Your task to perform on an android device: Show me the alarms in the clock app Image 0: 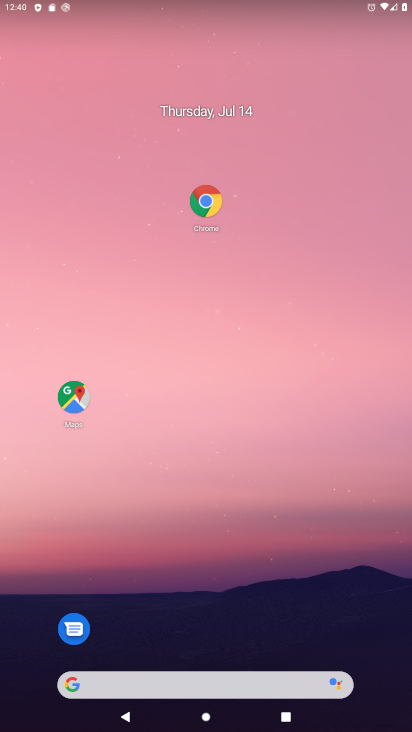
Step 0: drag from (227, 650) to (26, 155)
Your task to perform on an android device: Show me the alarms in the clock app Image 1: 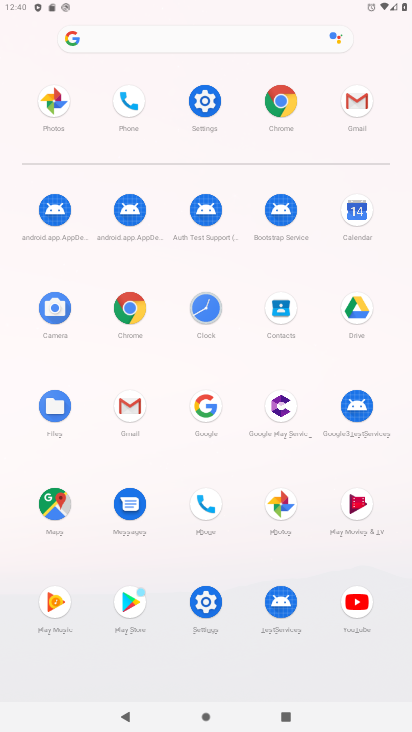
Step 1: click (201, 317)
Your task to perform on an android device: Show me the alarms in the clock app Image 2: 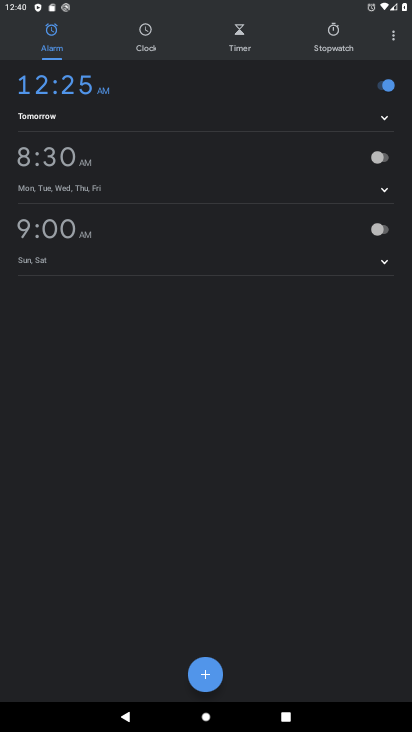
Step 2: click (212, 671)
Your task to perform on an android device: Show me the alarms in the clock app Image 3: 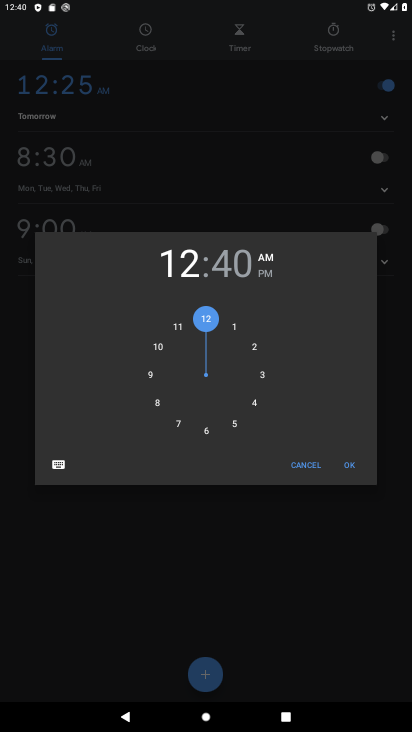
Step 3: click (346, 458)
Your task to perform on an android device: Show me the alarms in the clock app Image 4: 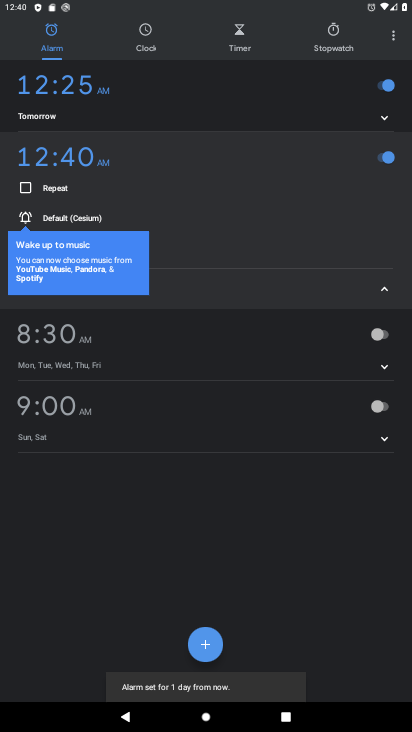
Step 4: task complete